Your task to perform on an android device: Do I have any events this weekend? Image 0: 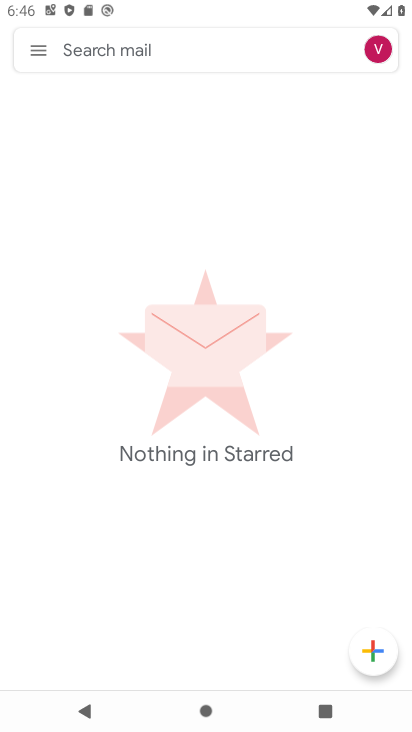
Step 0: press home button
Your task to perform on an android device: Do I have any events this weekend? Image 1: 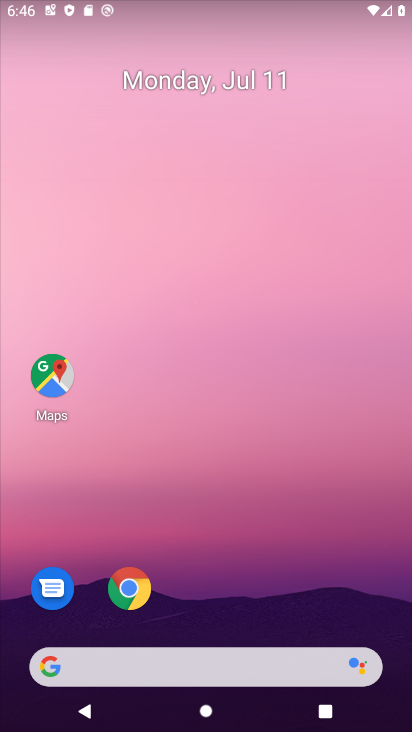
Step 1: drag from (384, 633) to (155, 115)
Your task to perform on an android device: Do I have any events this weekend? Image 2: 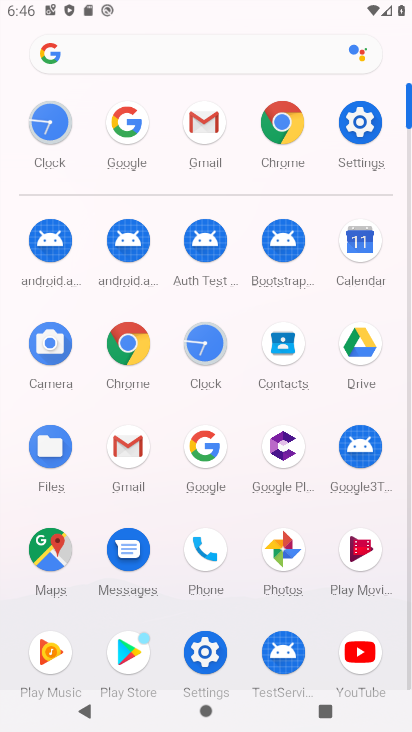
Step 2: click (367, 244)
Your task to perform on an android device: Do I have any events this weekend? Image 3: 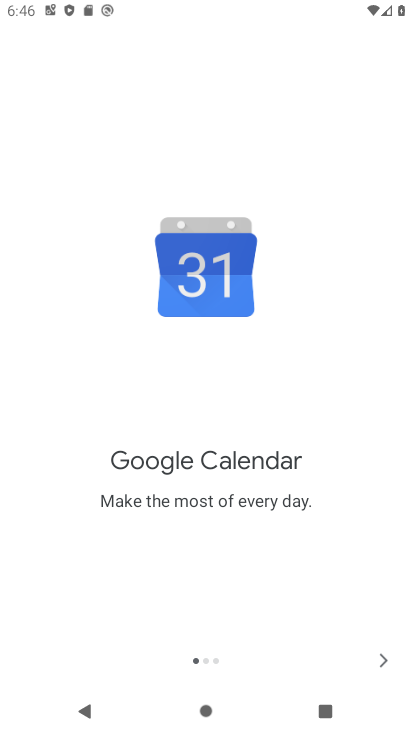
Step 3: click (392, 658)
Your task to perform on an android device: Do I have any events this weekend? Image 4: 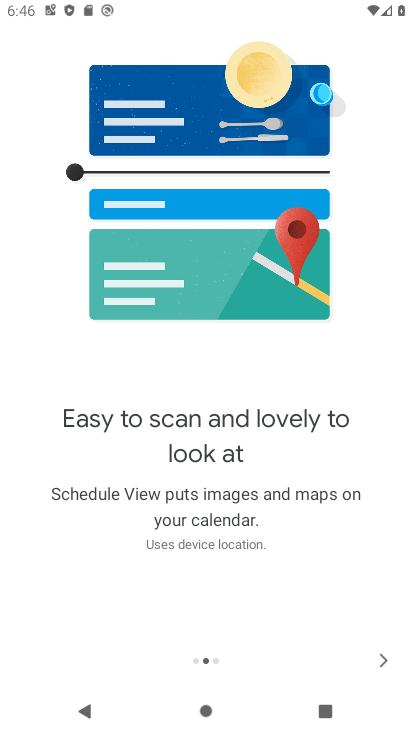
Step 4: click (392, 658)
Your task to perform on an android device: Do I have any events this weekend? Image 5: 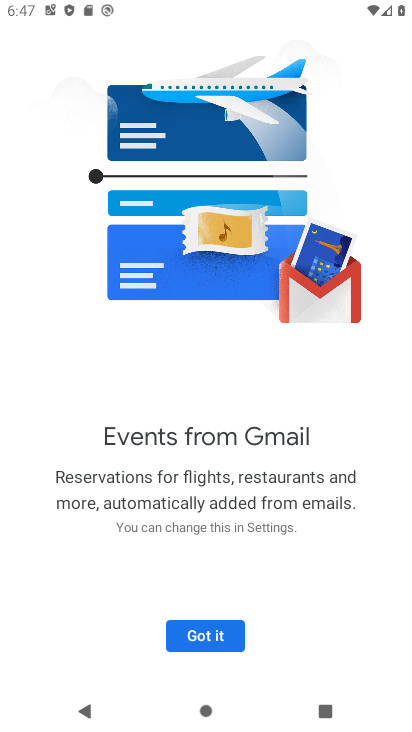
Step 5: click (183, 640)
Your task to perform on an android device: Do I have any events this weekend? Image 6: 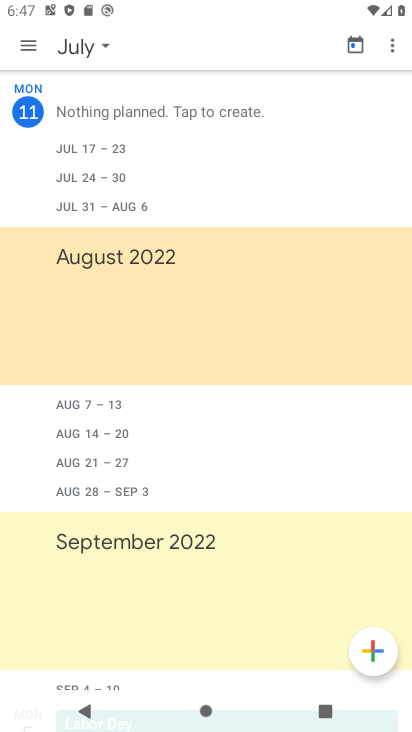
Step 6: click (86, 41)
Your task to perform on an android device: Do I have any events this weekend? Image 7: 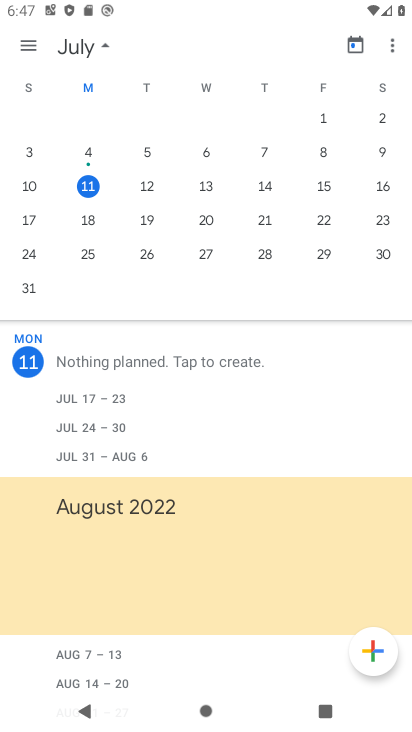
Step 7: click (382, 183)
Your task to perform on an android device: Do I have any events this weekend? Image 8: 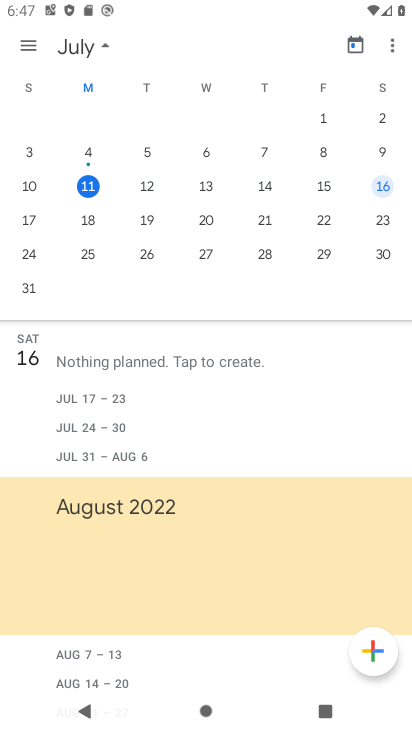
Step 8: click (176, 362)
Your task to perform on an android device: Do I have any events this weekend? Image 9: 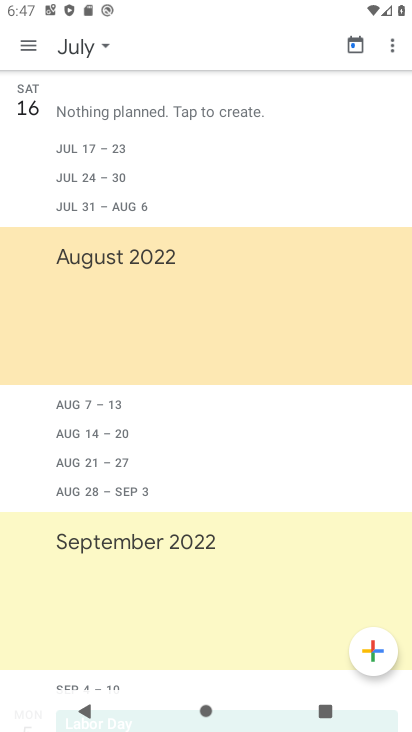
Step 9: task complete